Your task to perform on an android device: Go to network settings Image 0: 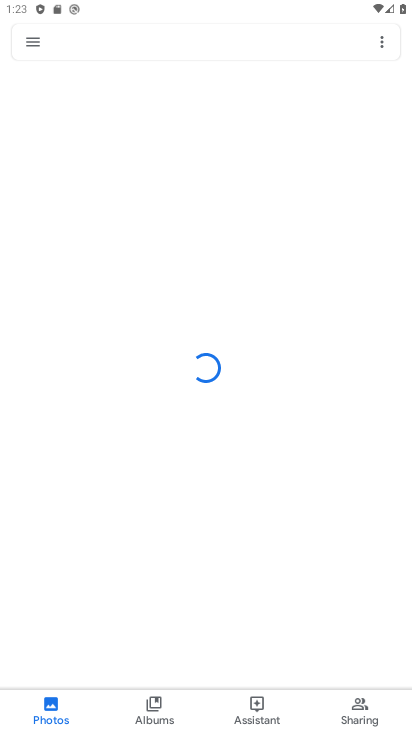
Step 0: press back button
Your task to perform on an android device: Go to network settings Image 1: 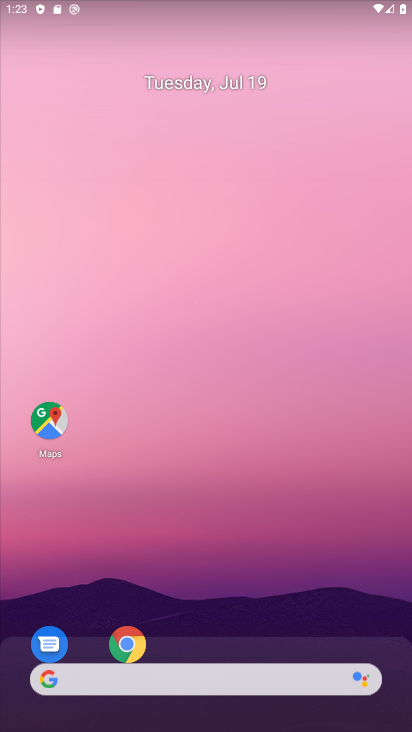
Step 1: drag from (174, 533) to (182, 44)
Your task to perform on an android device: Go to network settings Image 2: 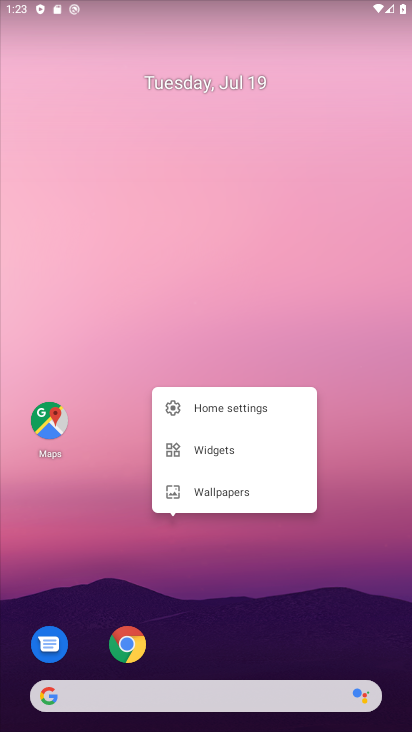
Step 2: click (195, 623)
Your task to perform on an android device: Go to network settings Image 3: 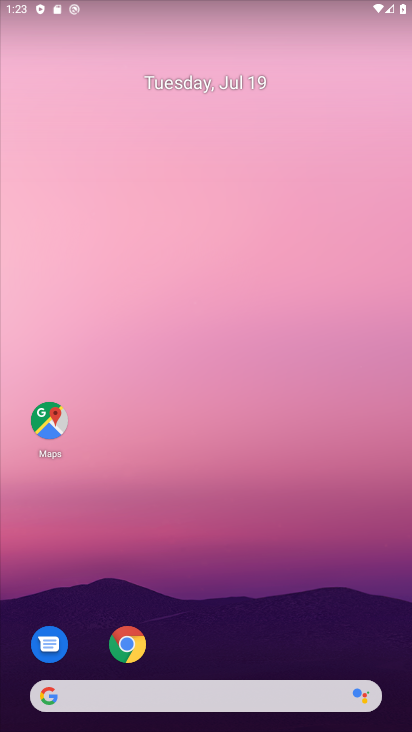
Step 3: drag from (181, 545) to (172, 152)
Your task to perform on an android device: Go to network settings Image 4: 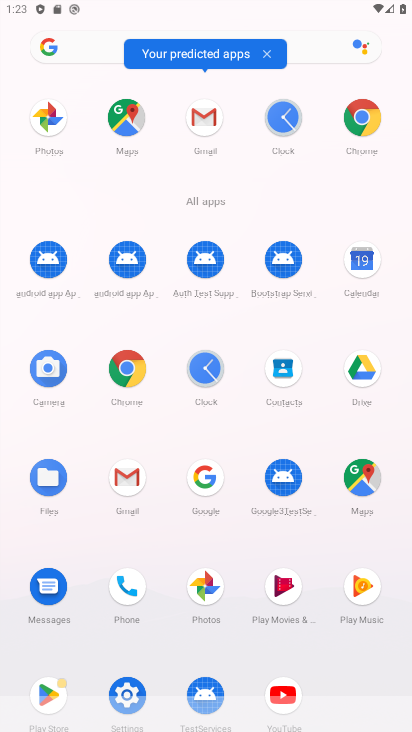
Step 4: click (126, 686)
Your task to perform on an android device: Go to network settings Image 5: 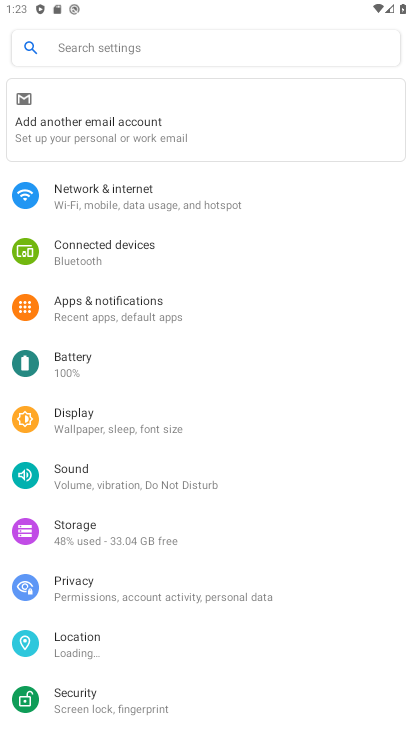
Step 5: click (148, 194)
Your task to perform on an android device: Go to network settings Image 6: 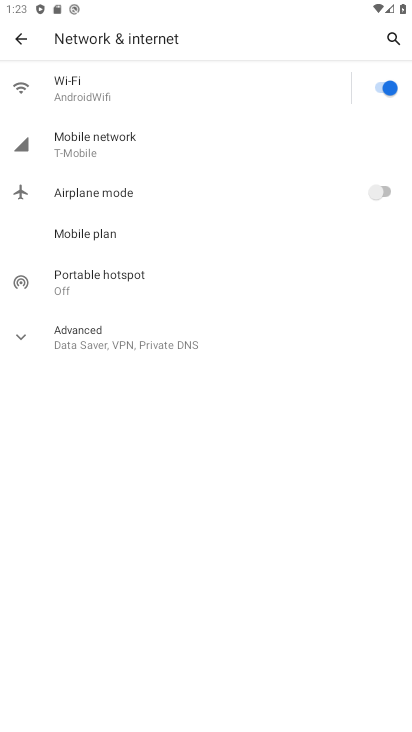
Step 6: task complete